Your task to perform on an android device: Look up the best rated gaming chairs on Target. Image 0: 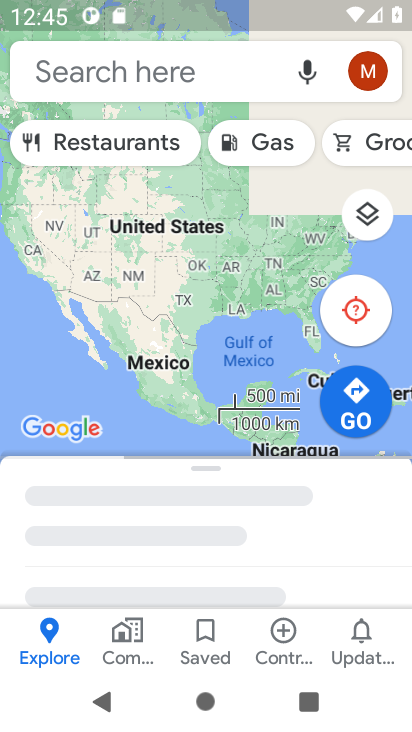
Step 0: press home button
Your task to perform on an android device: Look up the best rated gaming chairs on Target. Image 1: 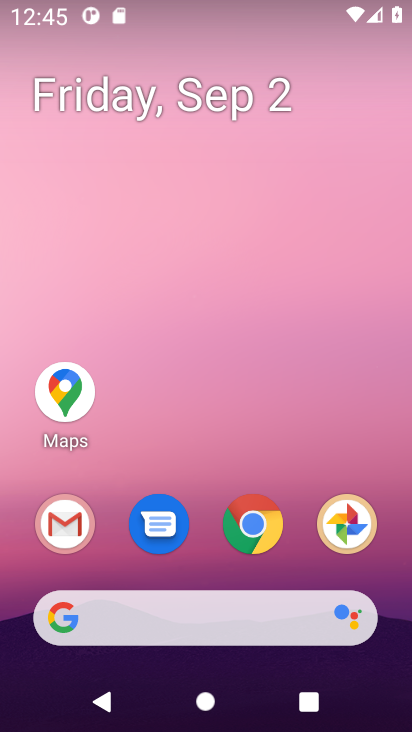
Step 1: click (278, 619)
Your task to perform on an android device: Look up the best rated gaming chairs on Target. Image 2: 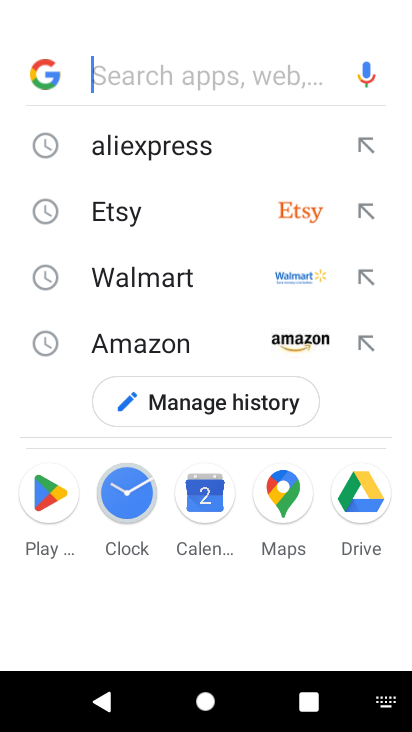
Step 2: press enter
Your task to perform on an android device: Look up the best rated gaming chairs on Target. Image 3: 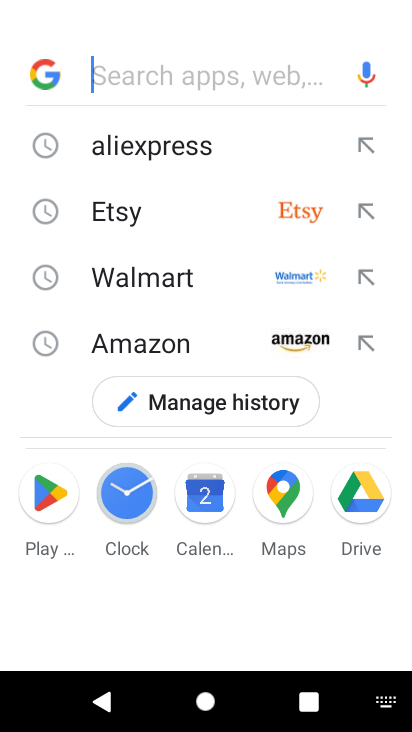
Step 3: type "target"
Your task to perform on an android device: Look up the best rated gaming chairs on Target. Image 4: 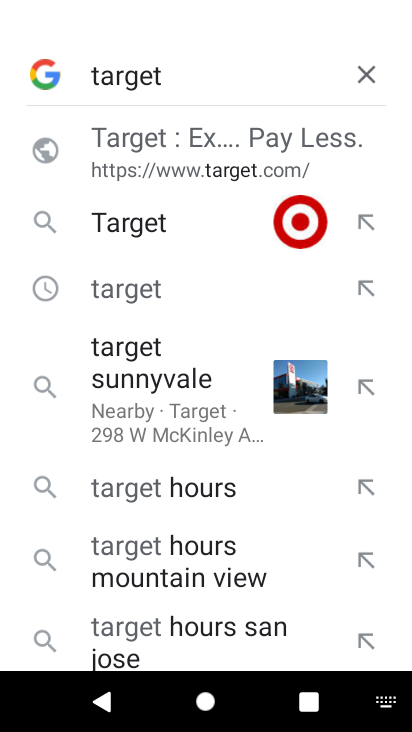
Step 4: click (197, 154)
Your task to perform on an android device: Look up the best rated gaming chairs on Target. Image 5: 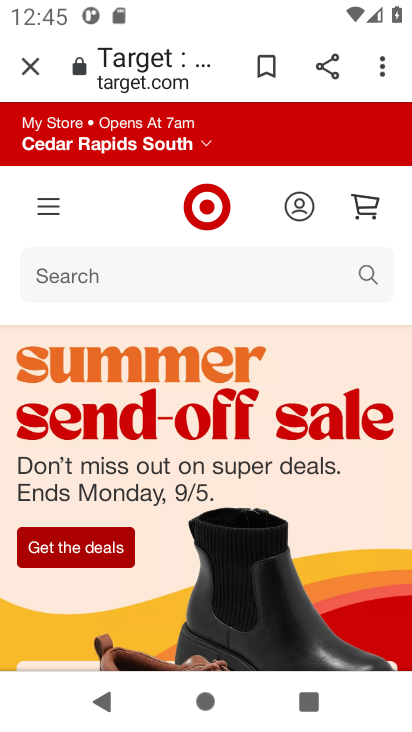
Step 5: click (169, 278)
Your task to perform on an android device: Look up the best rated gaming chairs on Target. Image 6: 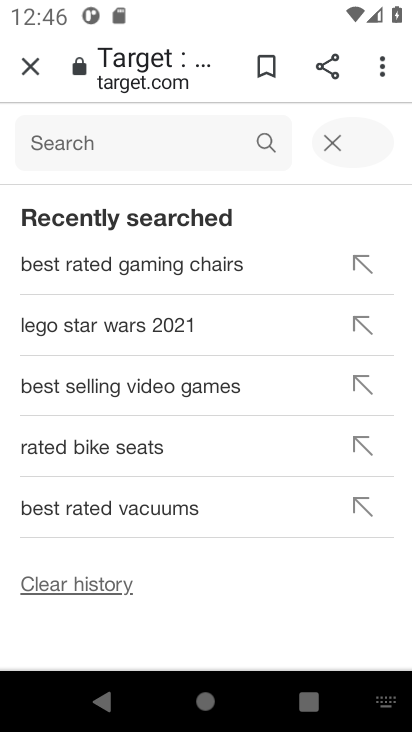
Step 6: type "gaming chairs"
Your task to perform on an android device: Look up the best rated gaming chairs on Target. Image 7: 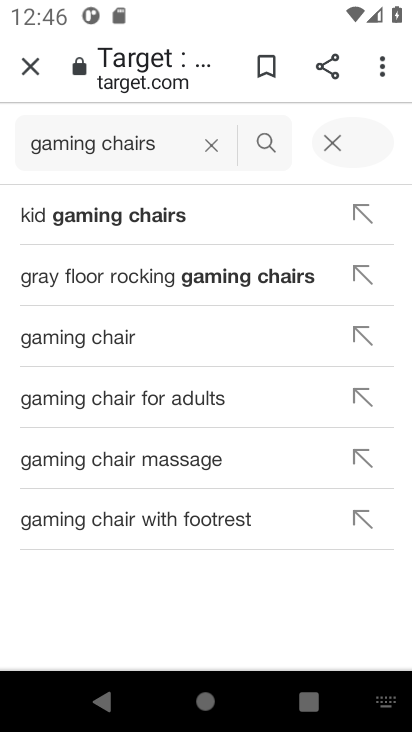
Step 7: click (135, 338)
Your task to perform on an android device: Look up the best rated gaming chairs on Target. Image 8: 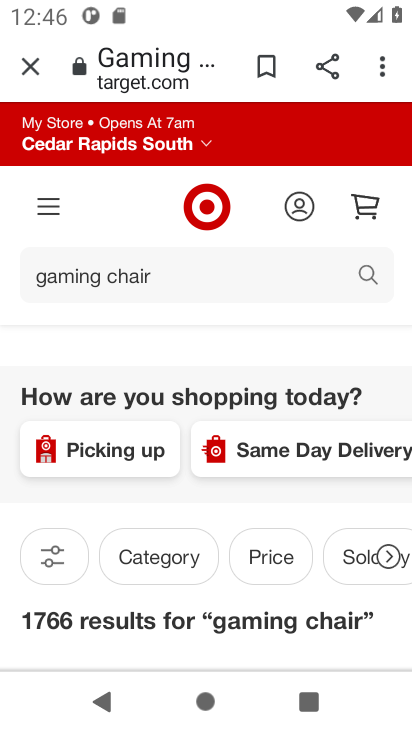
Step 8: task complete